Your task to perform on an android device: Go to CNN.com Image 0: 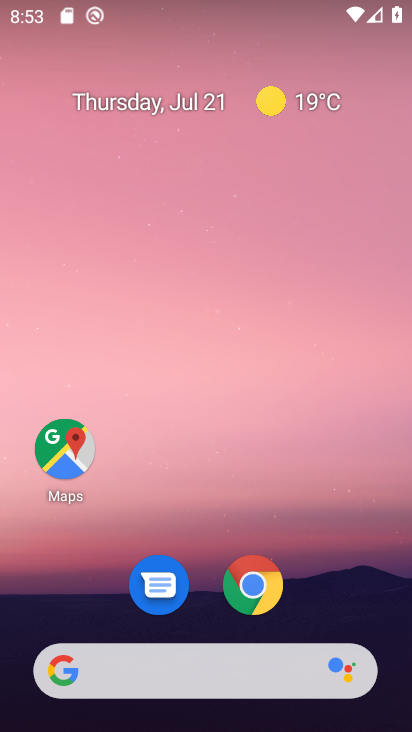
Step 0: click (210, 673)
Your task to perform on an android device: Go to CNN.com Image 1: 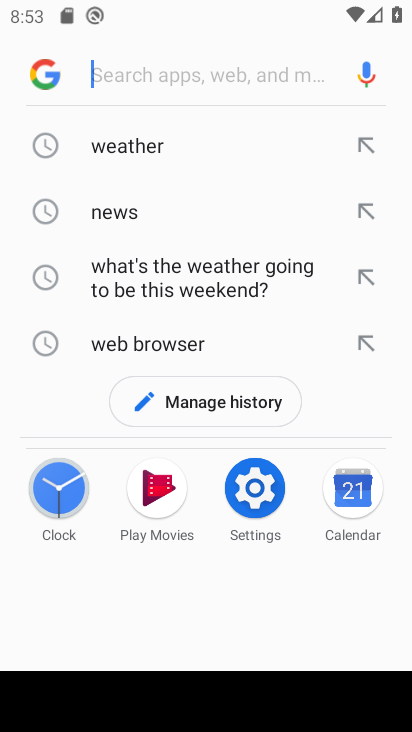
Step 1: type "cnn.com"
Your task to perform on an android device: Go to CNN.com Image 2: 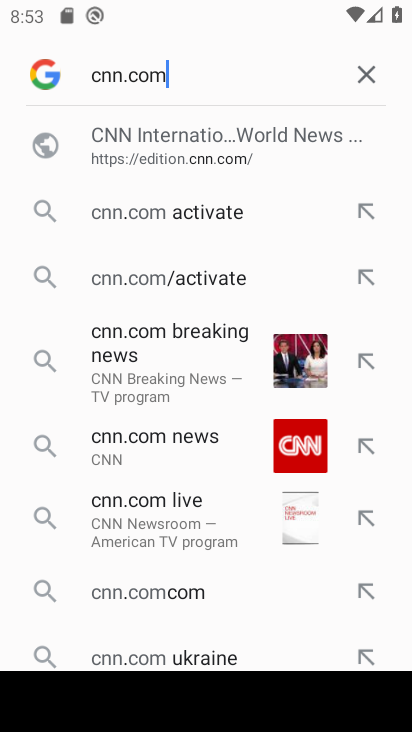
Step 2: click (162, 149)
Your task to perform on an android device: Go to CNN.com Image 3: 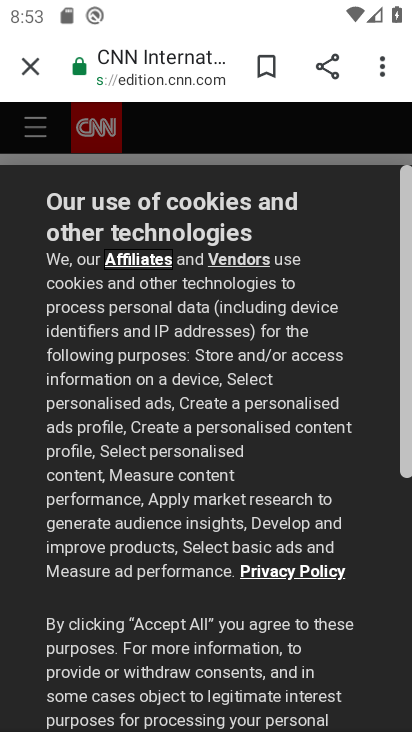
Step 3: drag from (213, 632) to (219, 137)
Your task to perform on an android device: Go to CNN.com Image 4: 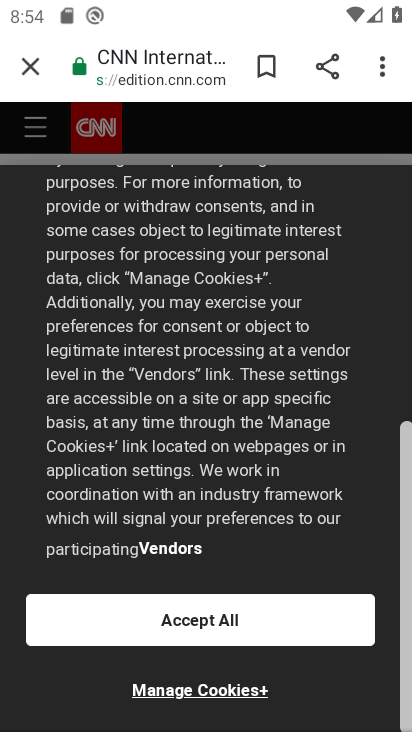
Step 4: click (209, 620)
Your task to perform on an android device: Go to CNN.com Image 5: 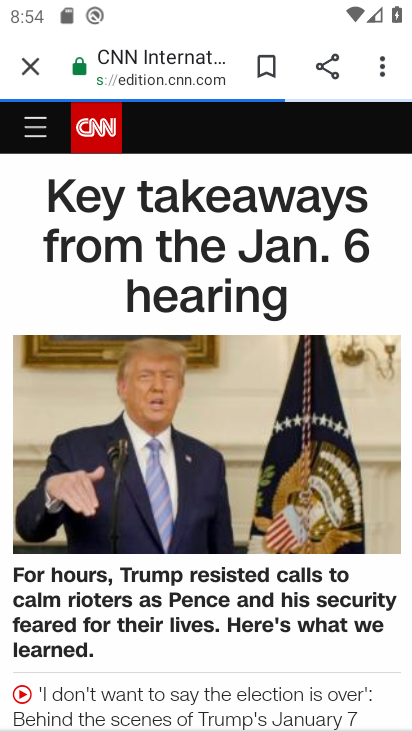
Step 5: task complete